Your task to perform on an android device: open a bookmark in the chrome app Image 0: 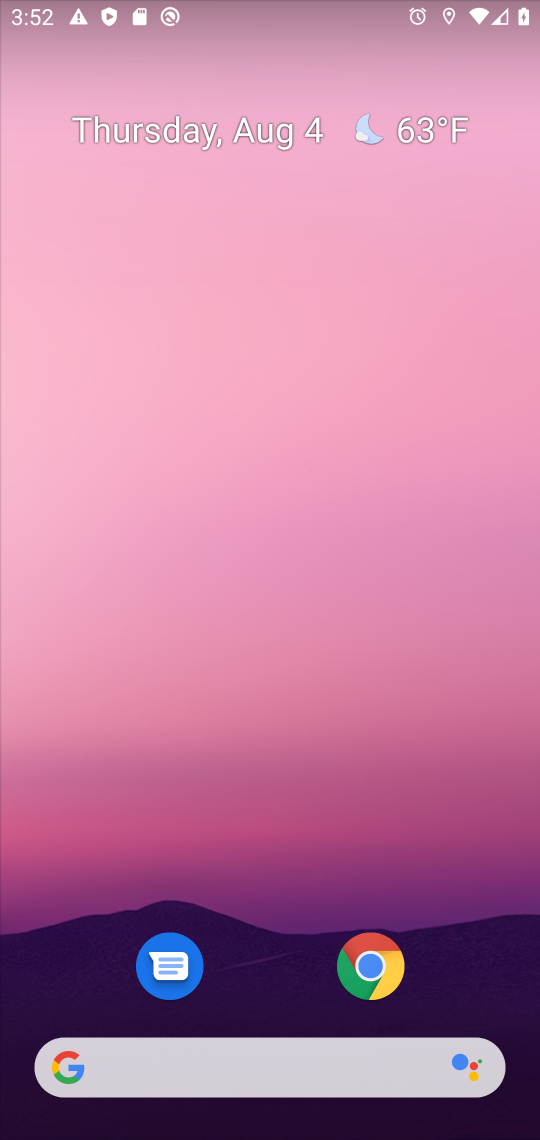
Step 0: click (360, 972)
Your task to perform on an android device: open a bookmark in the chrome app Image 1: 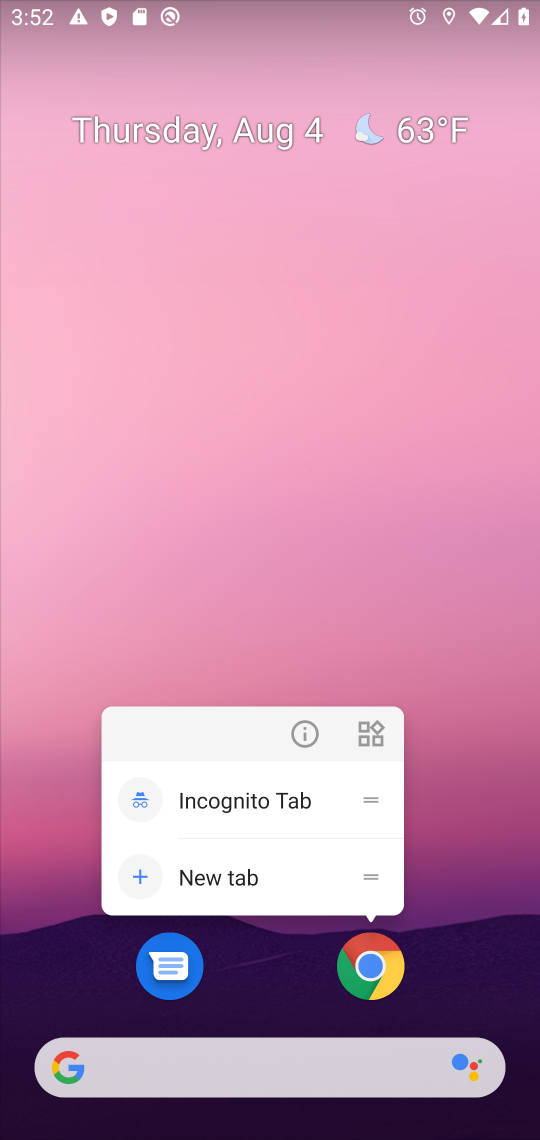
Step 1: click (366, 974)
Your task to perform on an android device: open a bookmark in the chrome app Image 2: 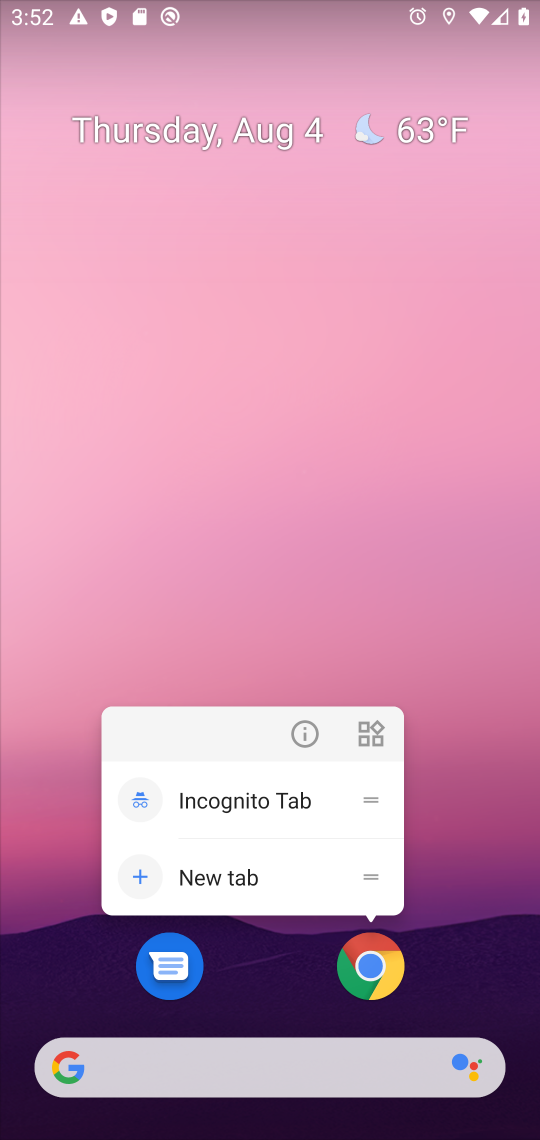
Step 2: click (362, 962)
Your task to perform on an android device: open a bookmark in the chrome app Image 3: 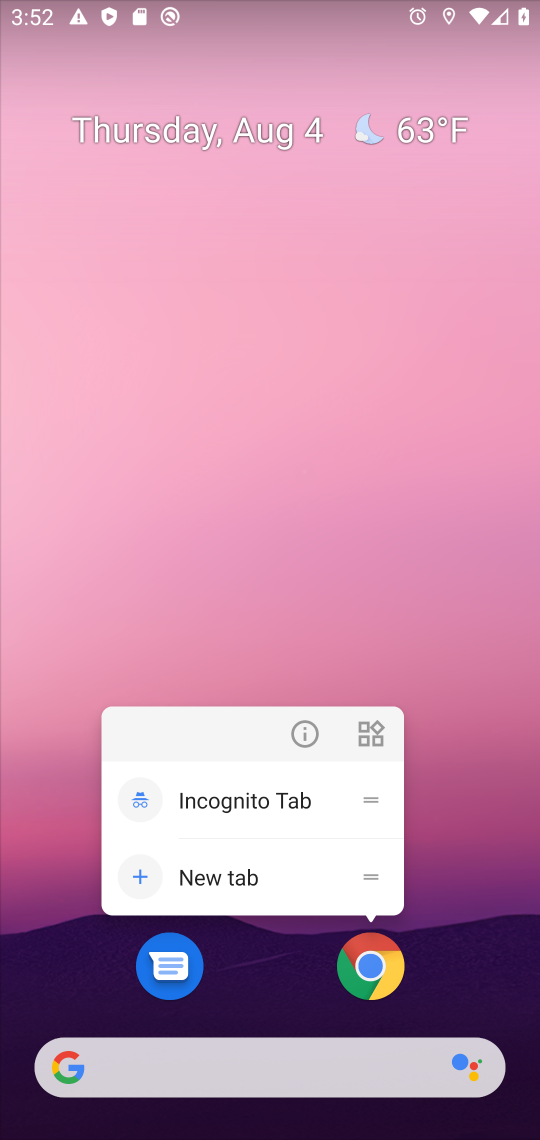
Step 3: click (384, 978)
Your task to perform on an android device: open a bookmark in the chrome app Image 4: 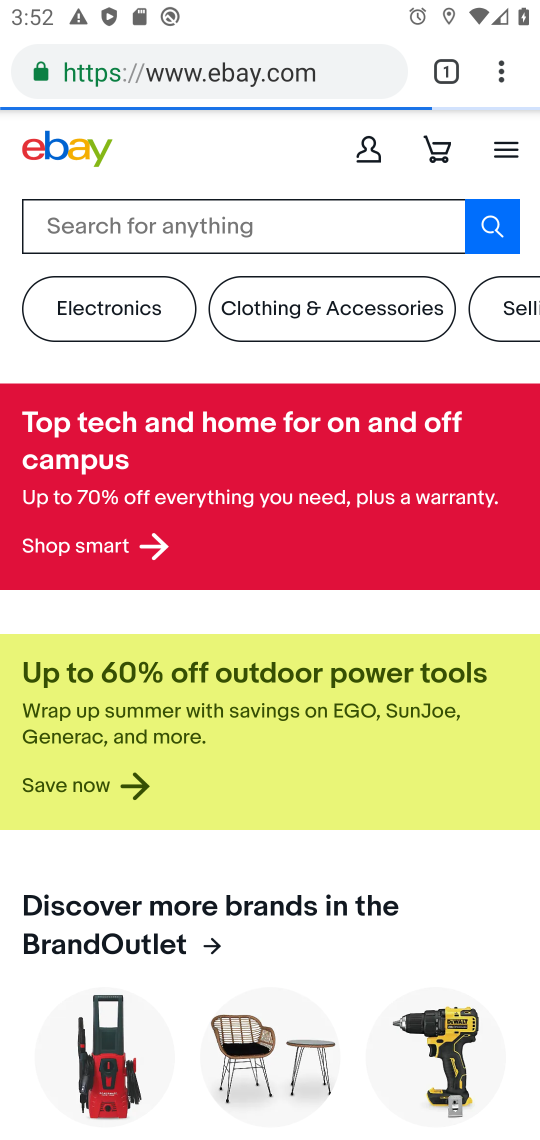
Step 4: drag from (498, 61) to (292, 269)
Your task to perform on an android device: open a bookmark in the chrome app Image 5: 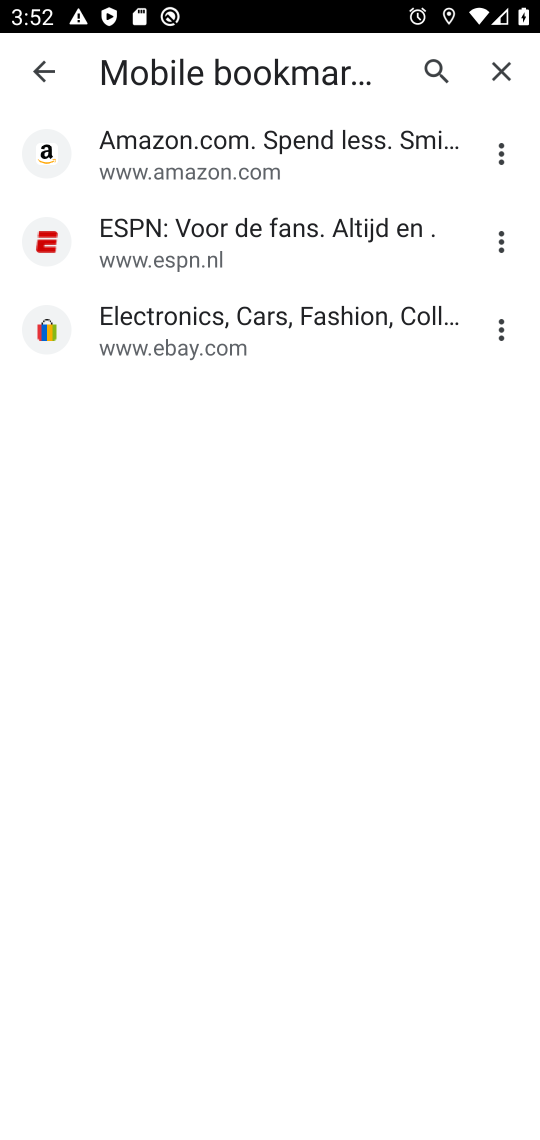
Step 5: click (190, 243)
Your task to perform on an android device: open a bookmark in the chrome app Image 6: 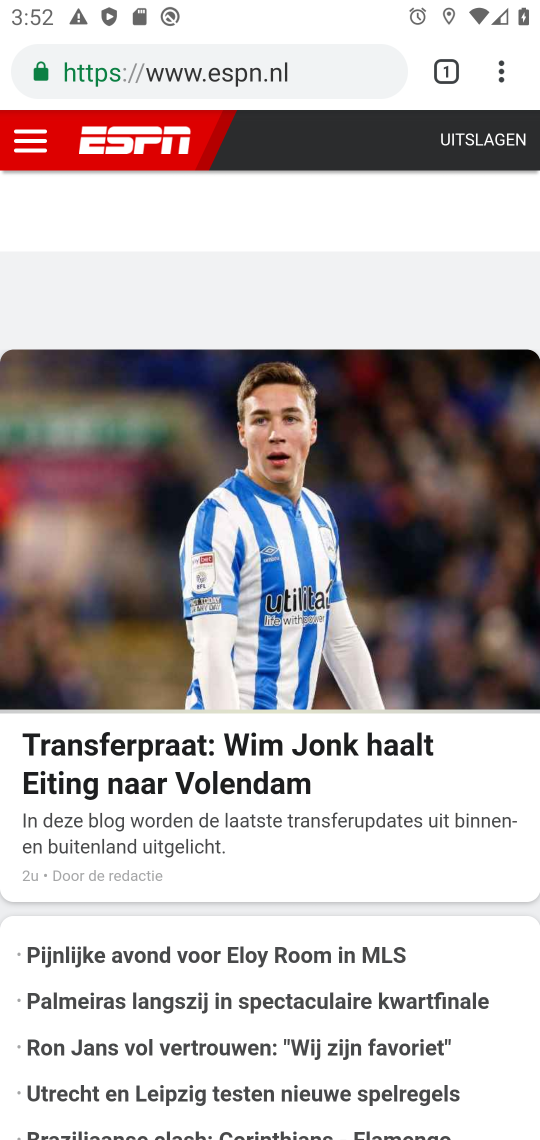
Step 6: task complete